Your task to perform on an android device: Open eBay Image 0: 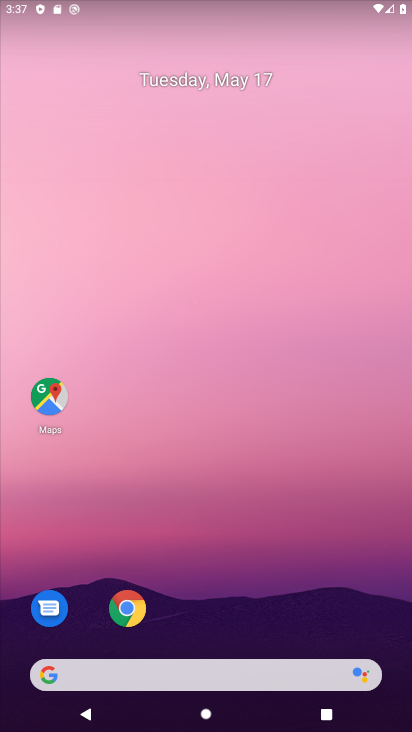
Step 0: click (121, 604)
Your task to perform on an android device: Open eBay Image 1: 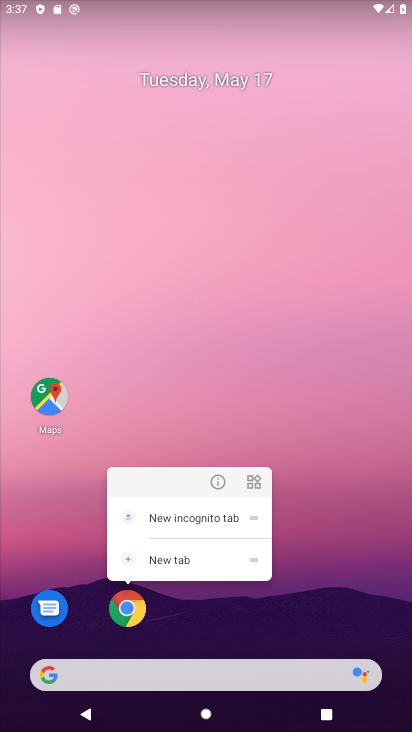
Step 1: click (125, 611)
Your task to perform on an android device: Open eBay Image 2: 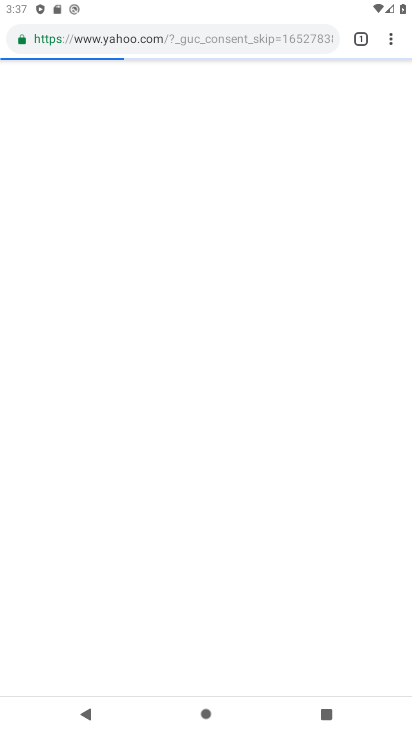
Step 2: click (358, 42)
Your task to perform on an android device: Open eBay Image 3: 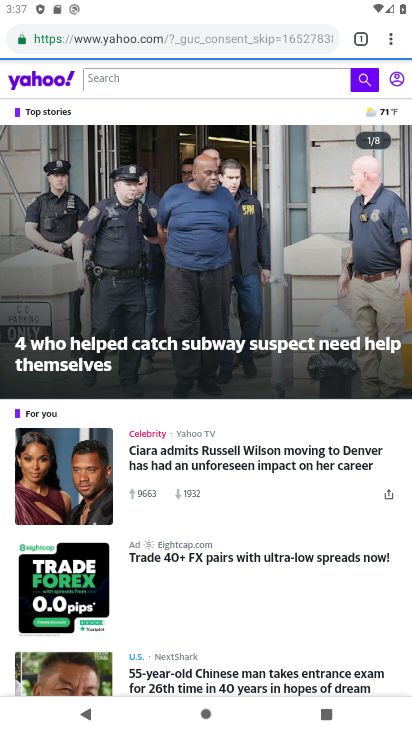
Step 3: click (360, 35)
Your task to perform on an android device: Open eBay Image 4: 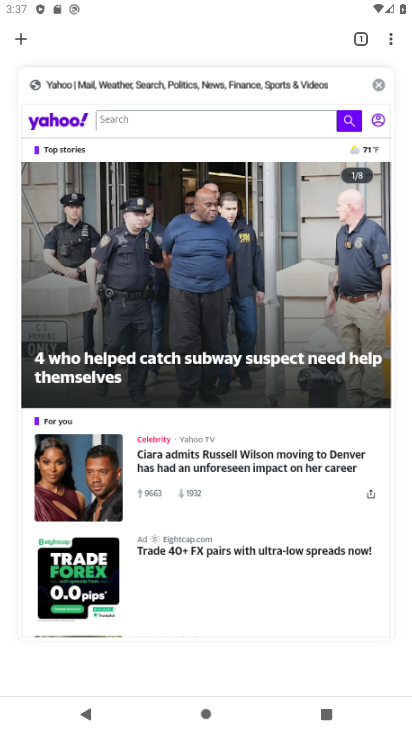
Step 4: click (376, 85)
Your task to perform on an android device: Open eBay Image 5: 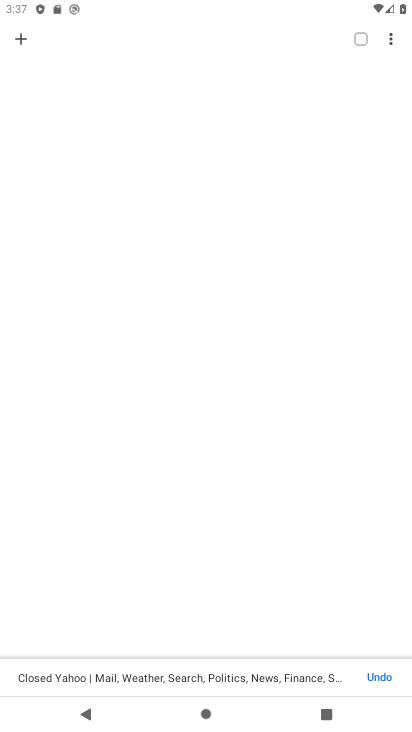
Step 5: click (17, 43)
Your task to perform on an android device: Open eBay Image 6: 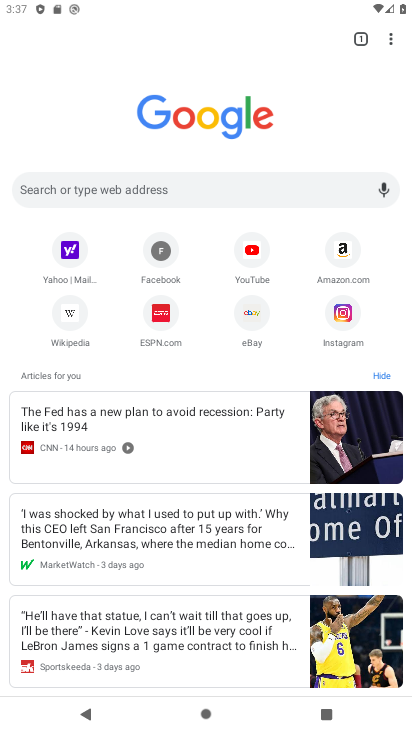
Step 6: click (257, 310)
Your task to perform on an android device: Open eBay Image 7: 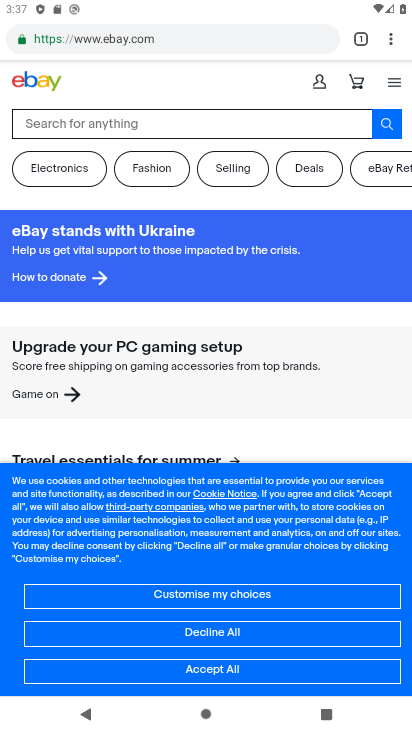
Step 7: task complete